Your task to perform on an android device: Search for floor lamps on article.com Image 0: 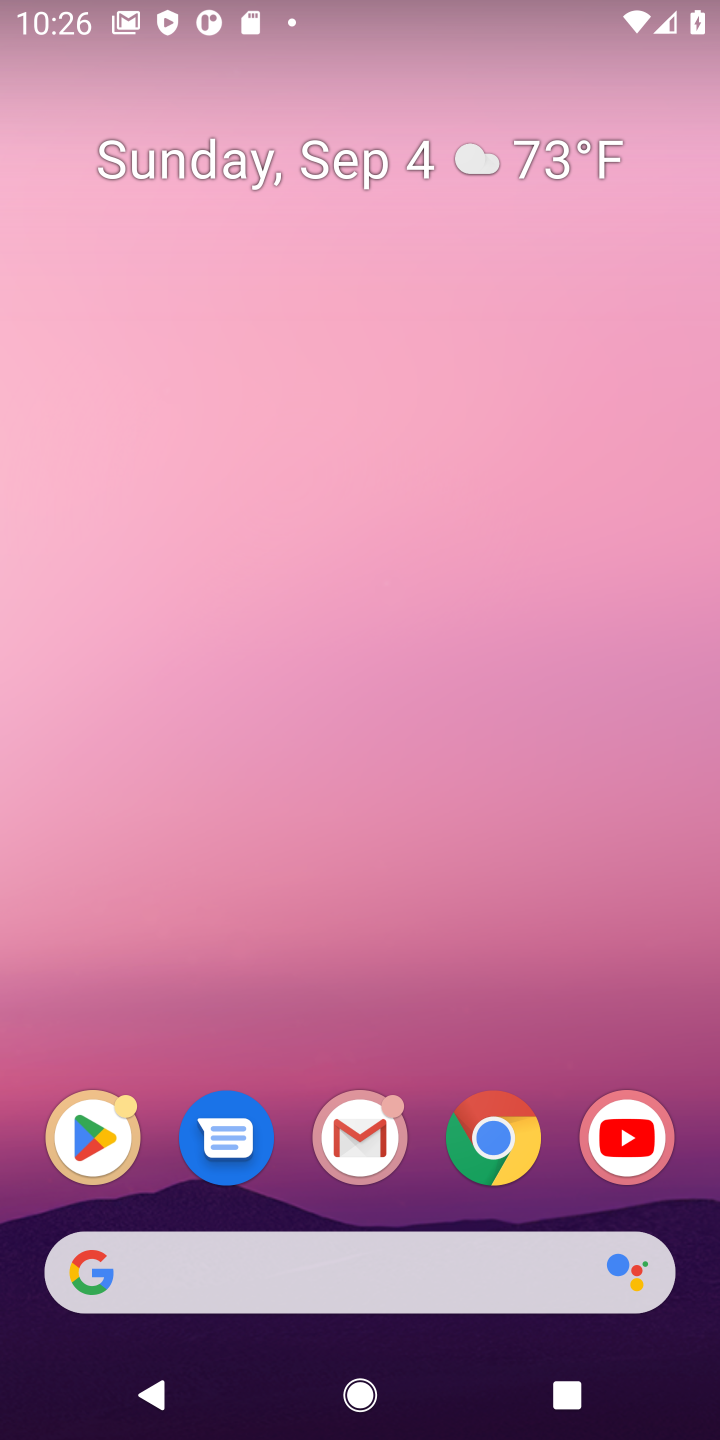
Step 0: drag from (544, 1266) to (552, 248)
Your task to perform on an android device: Search for floor lamps on article.com Image 1: 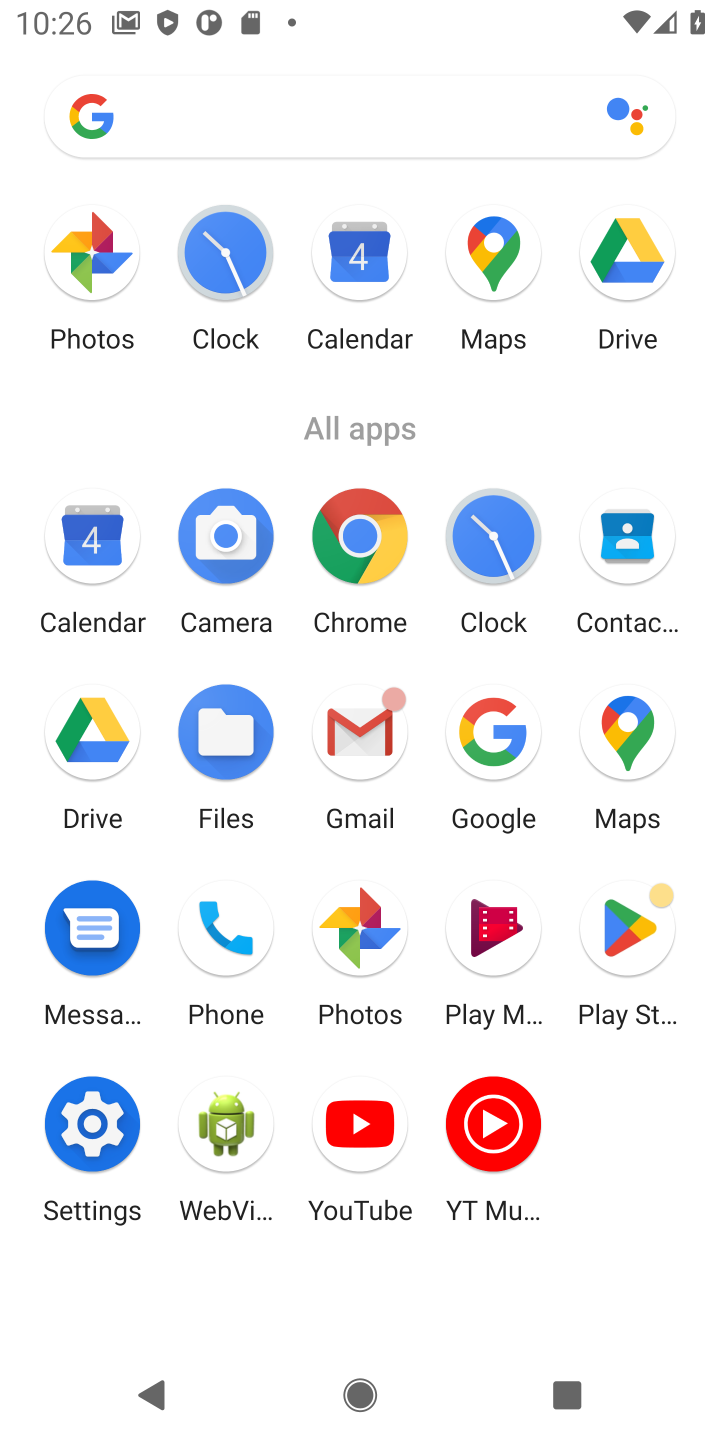
Step 1: click (329, 542)
Your task to perform on an android device: Search for floor lamps on article.com Image 2: 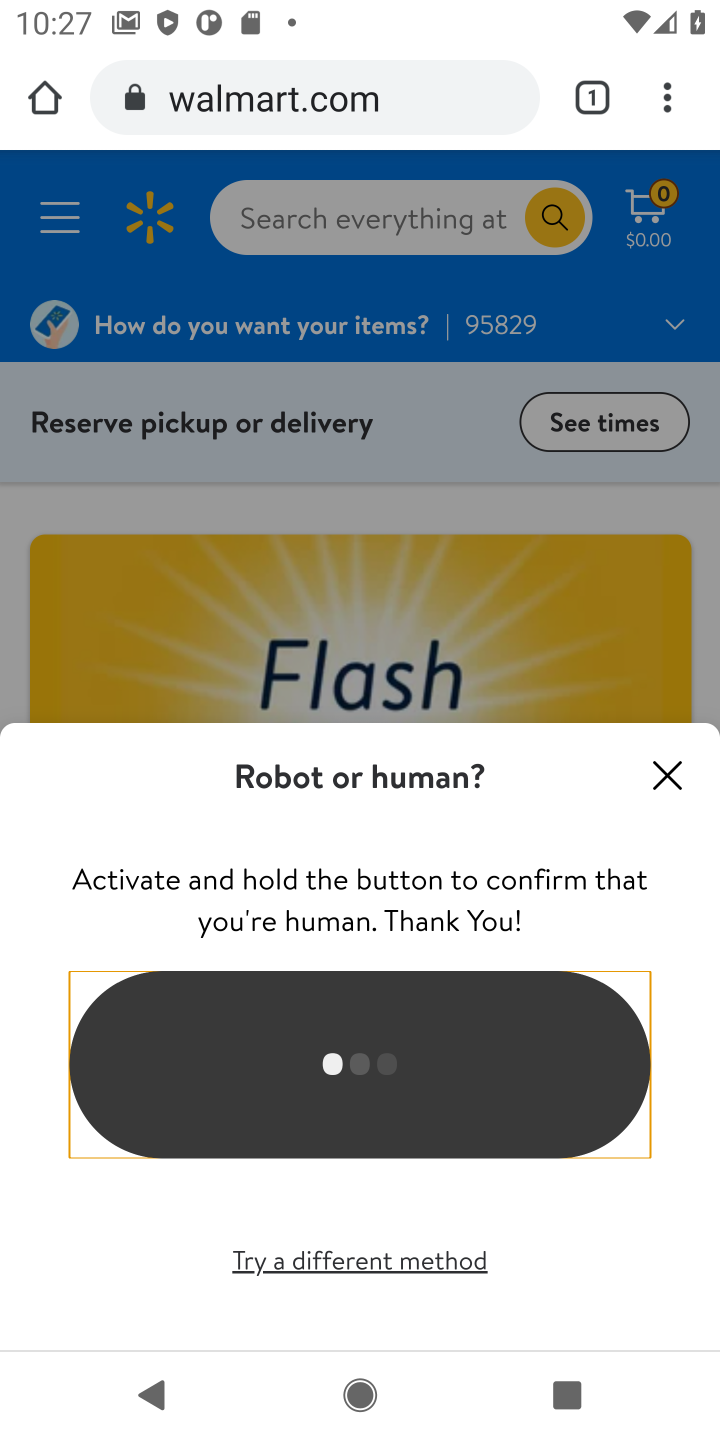
Step 2: click (329, 542)
Your task to perform on an android device: Search for floor lamps on article.com Image 3: 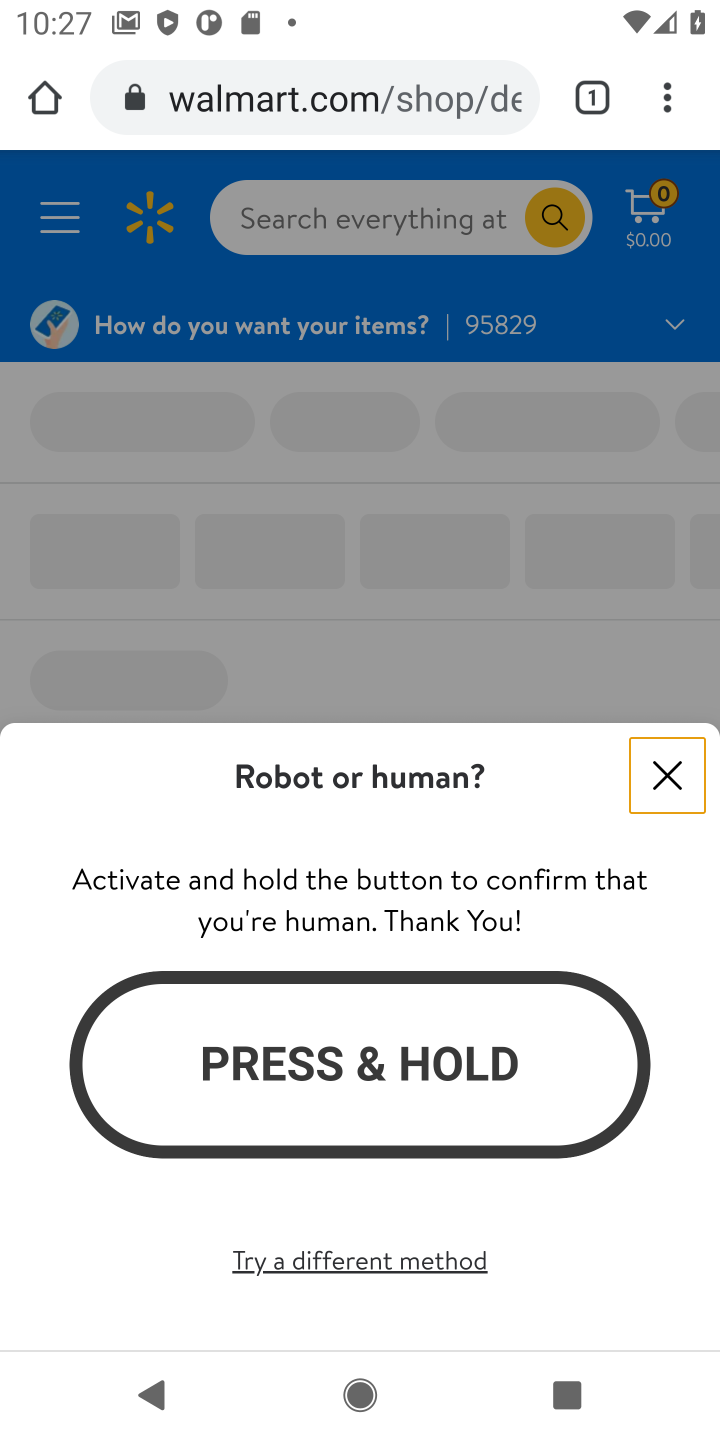
Step 3: click (396, 115)
Your task to perform on an android device: Search for floor lamps on article.com Image 4: 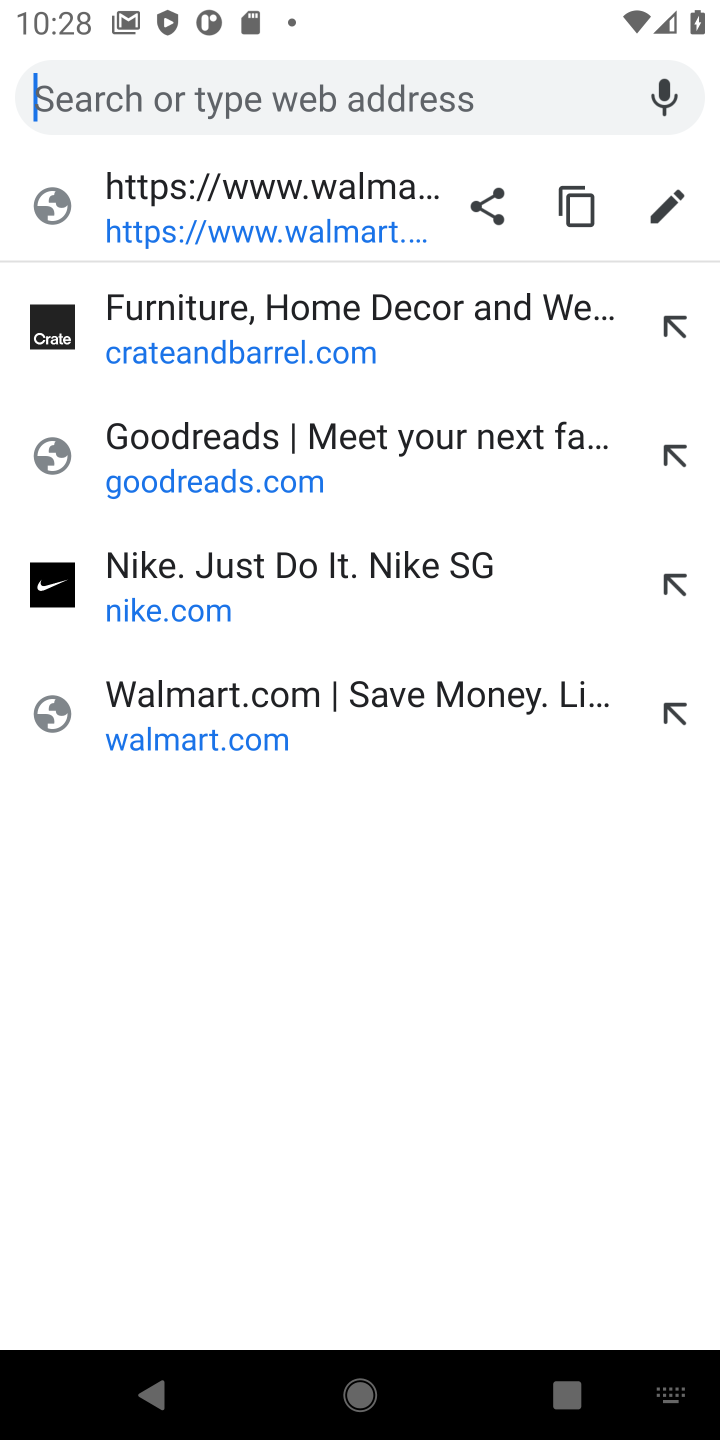
Step 4: type "article.com"
Your task to perform on an android device: Search for floor lamps on article.com Image 5: 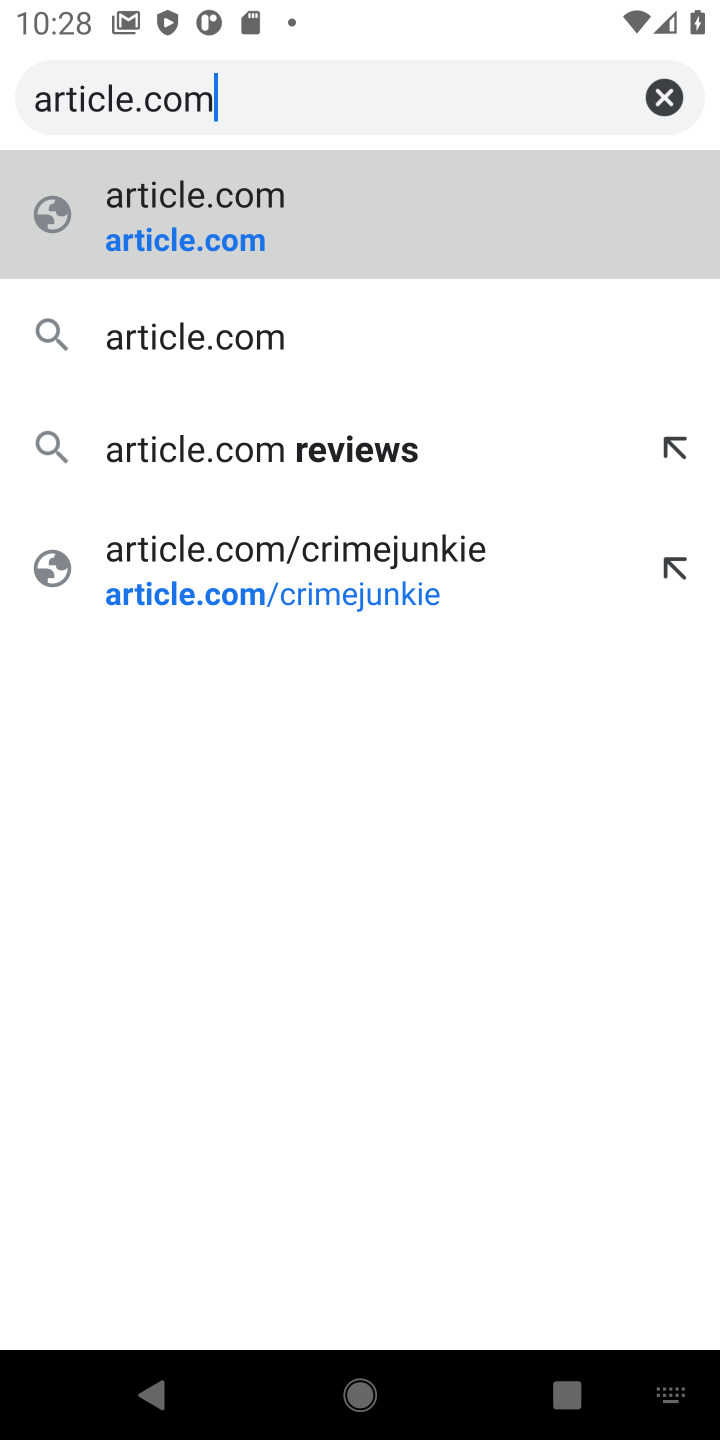
Step 5: click (299, 226)
Your task to perform on an android device: Search for floor lamps on article.com Image 6: 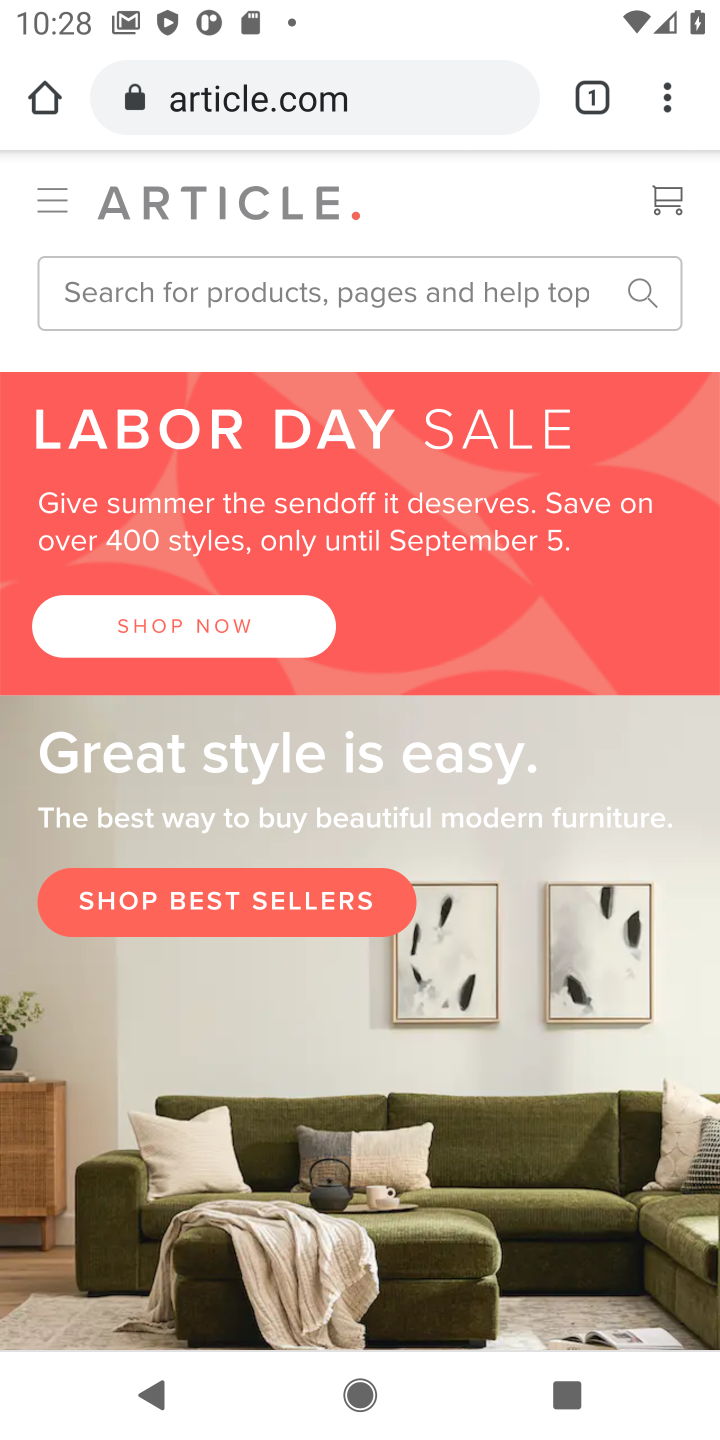
Step 6: click (358, 286)
Your task to perform on an android device: Search for floor lamps on article.com Image 7: 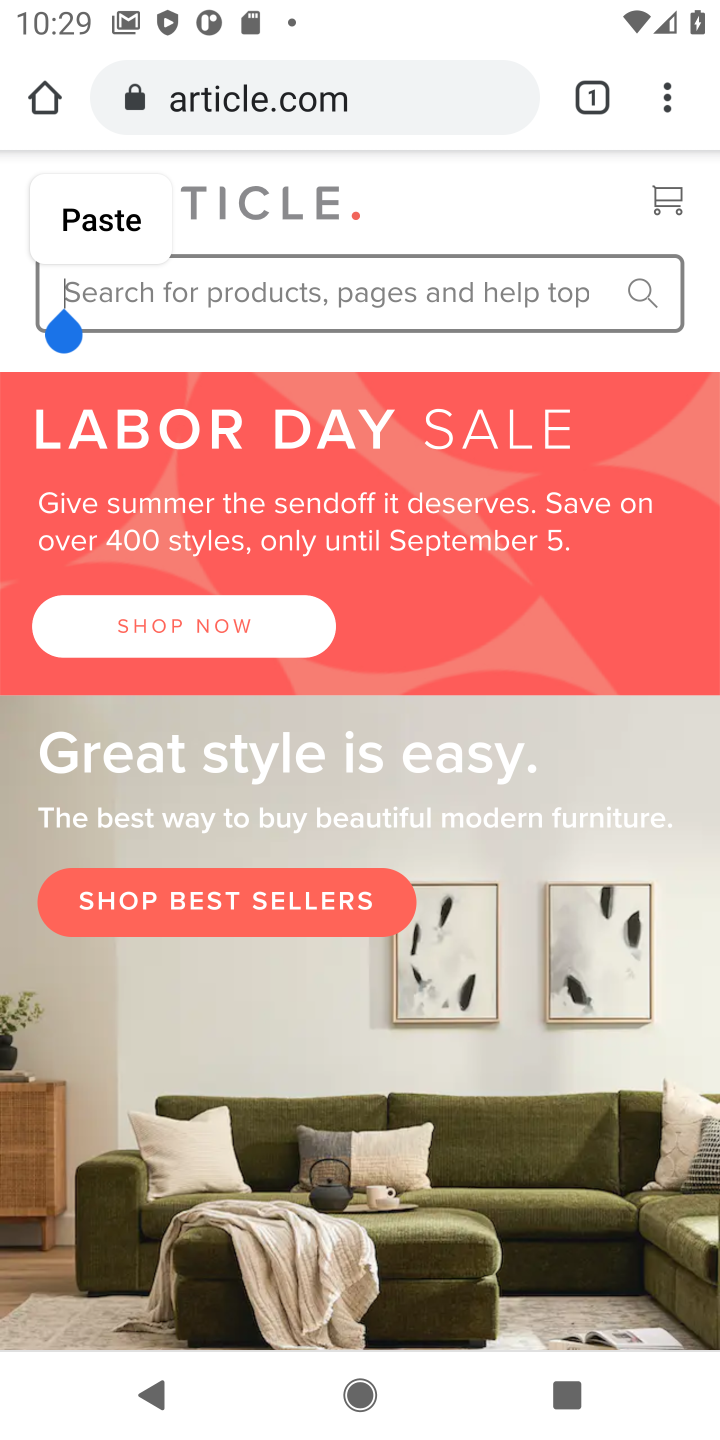
Step 7: type "floor lamps"
Your task to perform on an android device: Search for floor lamps on article.com Image 8: 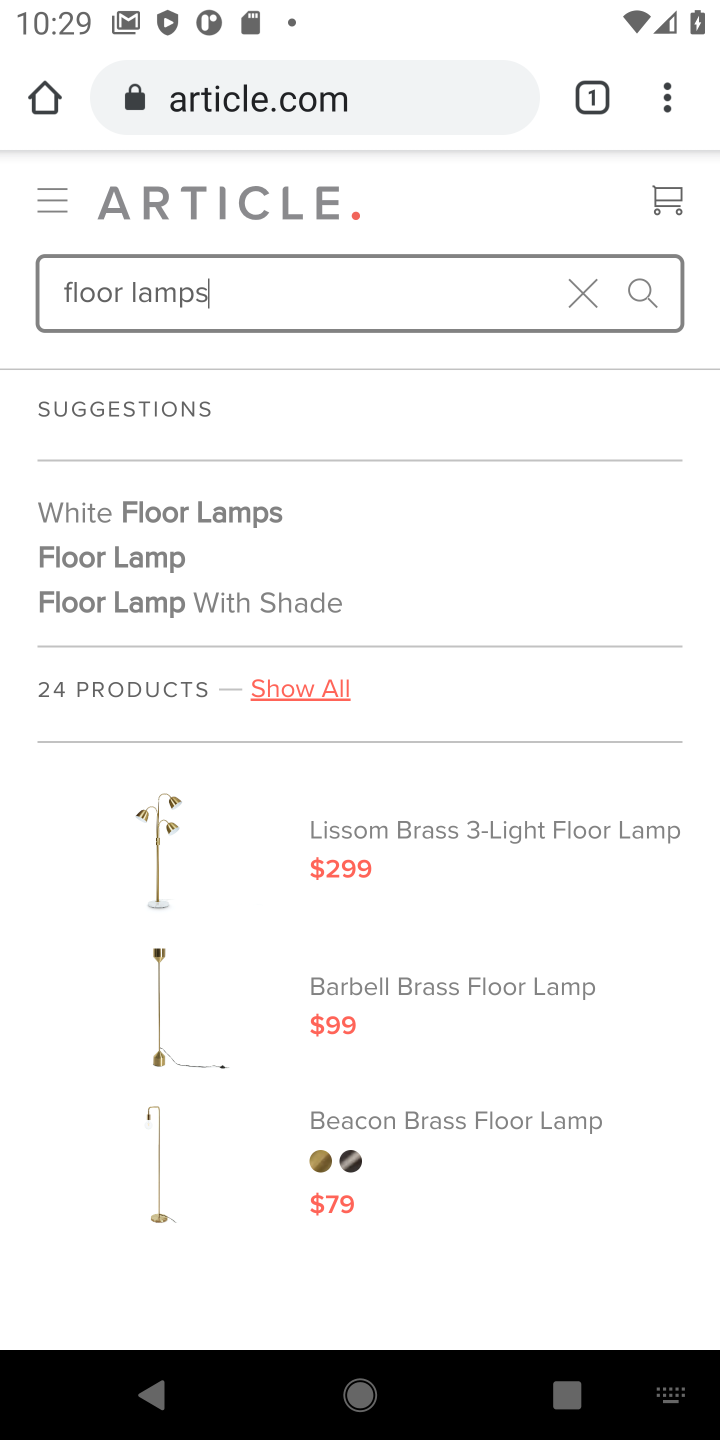
Step 8: press enter
Your task to perform on an android device: Search for floor lamps on article.com Image 9: 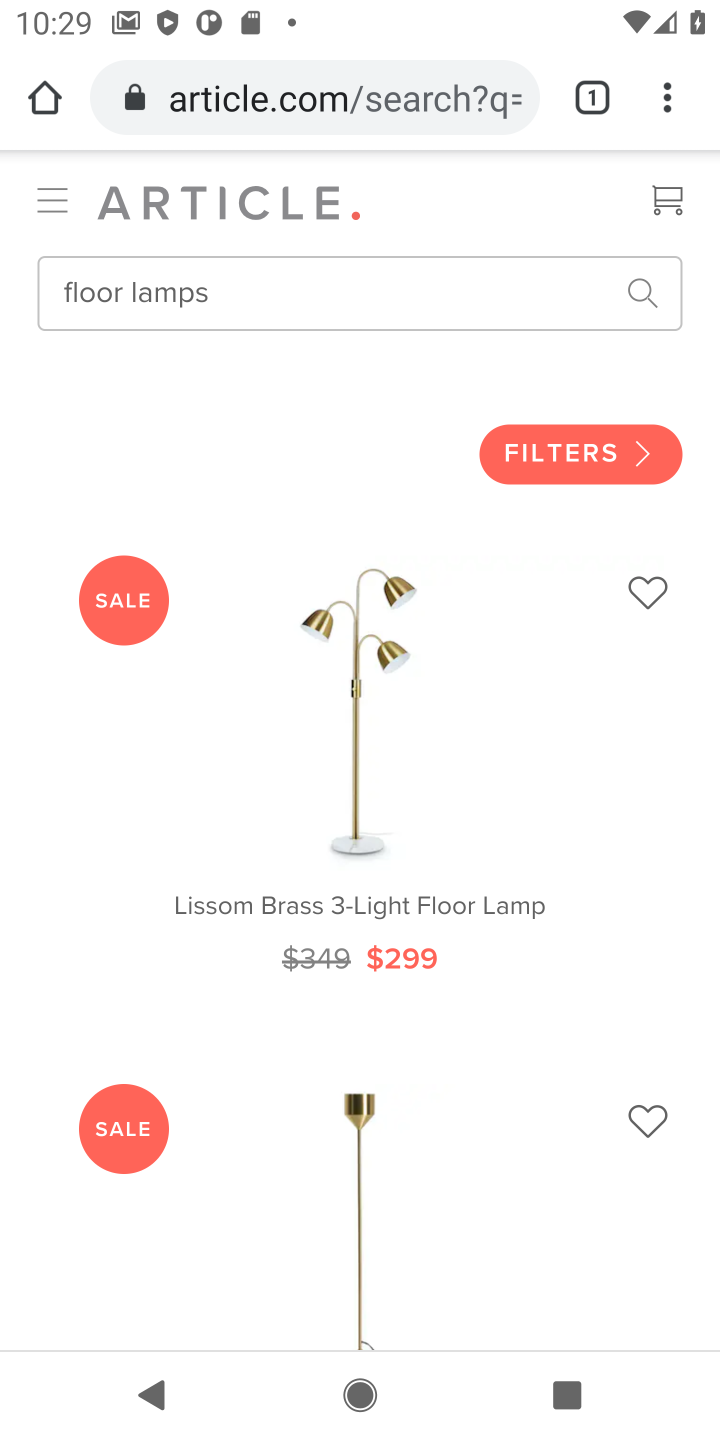
Step 9: task complete